Your task to perform on an android device: change the upload size in google photos Image 0: 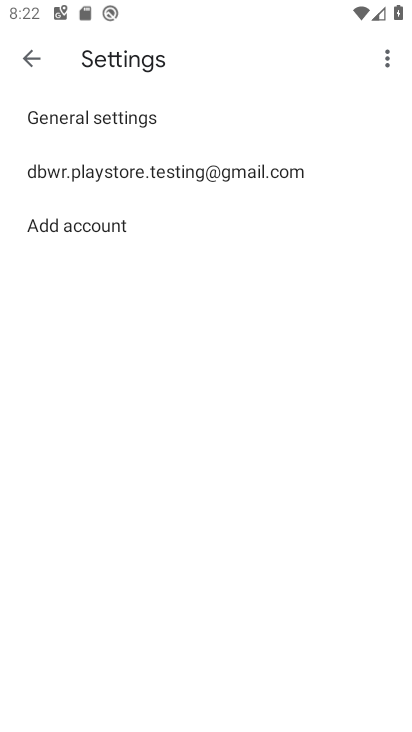
Step 0: press home button
Your task to perform on an android device: change the upload size in google photos Image 1: 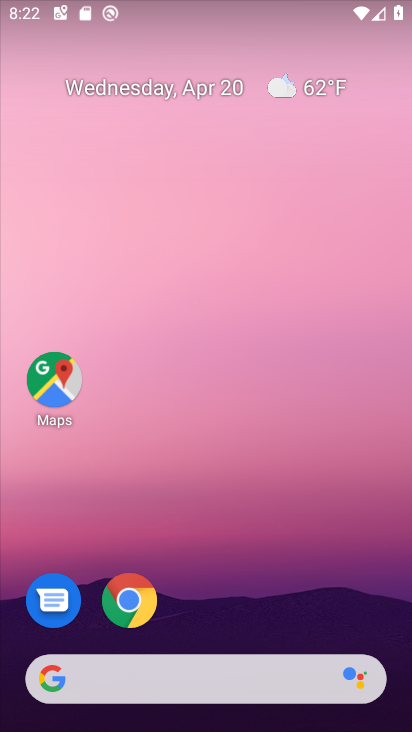
Step 1: drag from (221, 616) to (233, 76)
Your task to perform on an android device: change the upload size in google photos Image 2: 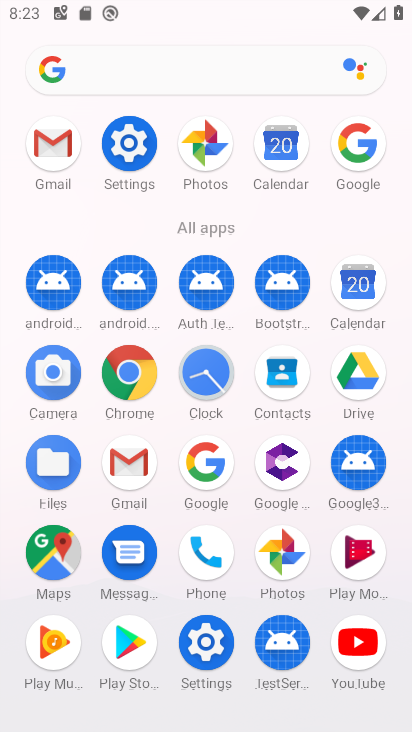
Step 2: click (207, 146)
Your task to perform on an android device: change the upload size in google photos Image 3: 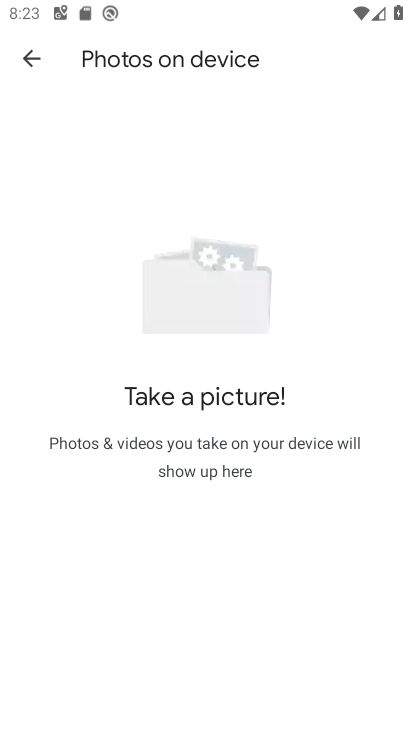
Step 3: click (16, 54)
Your task to perform on an android device: change the upload size in google photos Image 4: 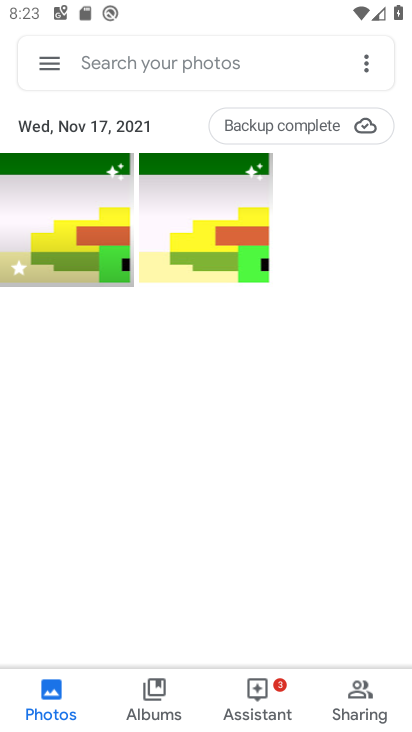
Step 4: click (45, 64)
Your task to perform on an android device: change the upload size in google photos Image 5: 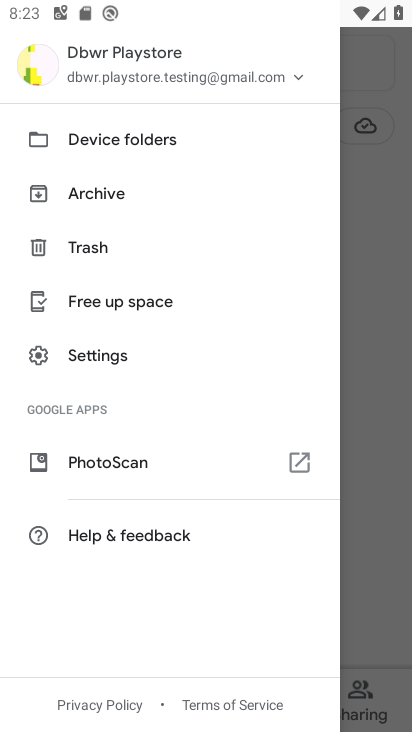
Step 5: click (106, 361)
Your task to perform on an android device: change the upload size in google photos Image 6: 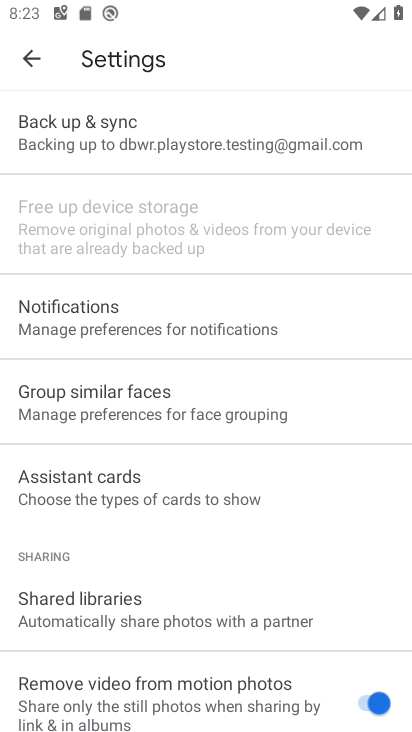
Step 6: click (153, 139)
Your task to perform on an android device: change the upload size in google photos Image 7: 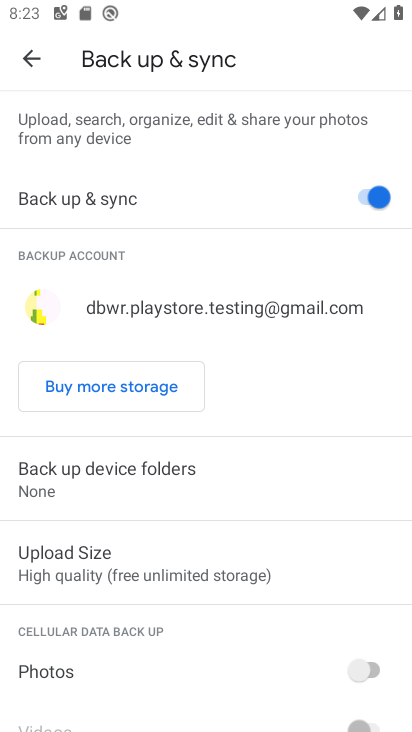
Step 7: click (138, 556)
Your task to perform on an android device: change the upload size in google photos Image 8: 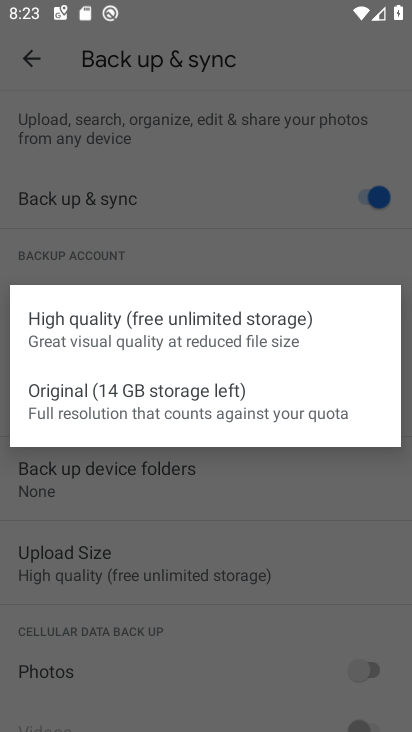
Step 8: click (138, 407)
Your task to perform on an android device: change the upload size in google photos Image 9: 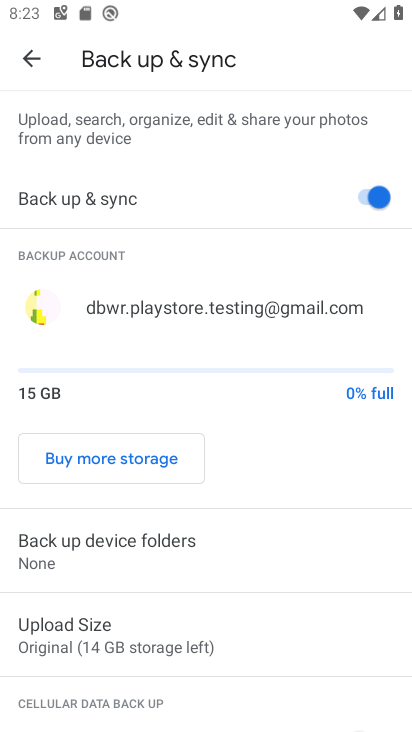
Step 9: task complete